Your task to perform on an android device: Do I have any events today? Image 0: 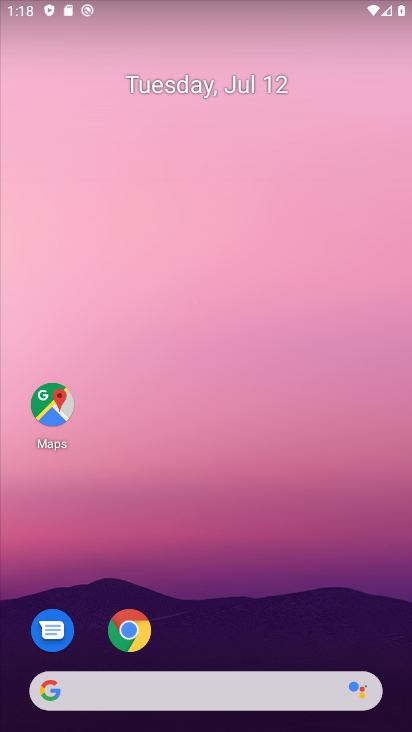
Step 0: drag from (383, 639) to (350, 61)
Your task to perform on an android device: Do I have any events today? Image 1: 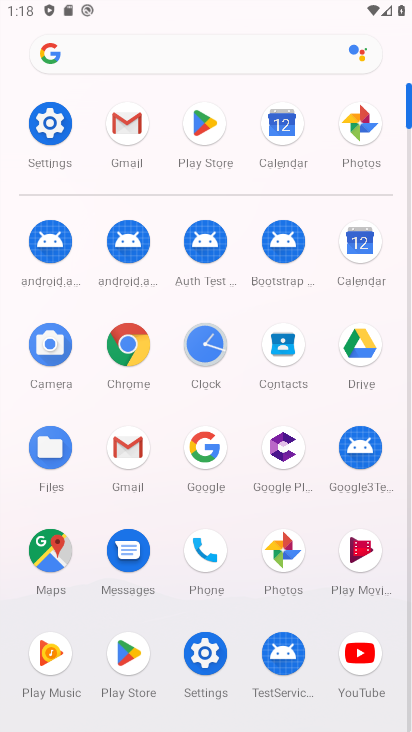
Step 1: click (358, 242)
Your task to perform on an android device: Do I have any events today? Image 2: 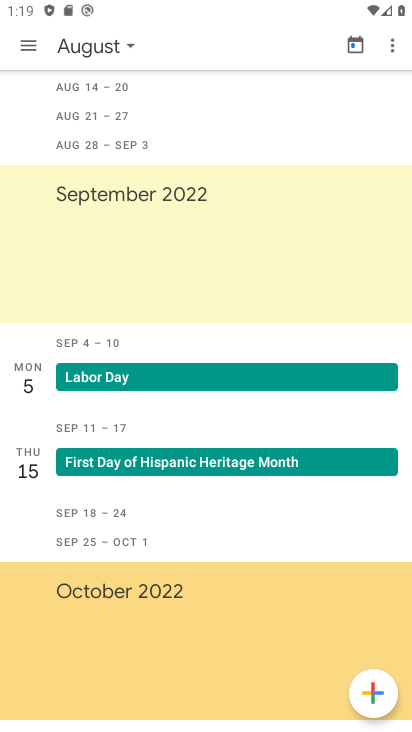
Step 2: click (28, 44)
Your task to perform on an android device: Do I have any events today? Image 3: 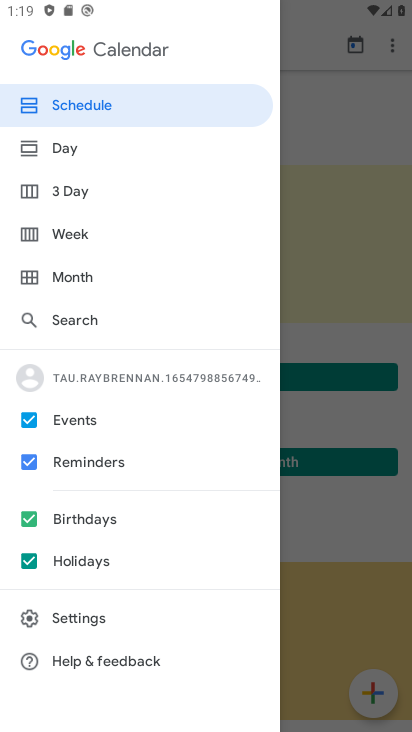
Step 3: click (61, 151)
Your task to perform on an android device: Do I have any events today? Image 4: 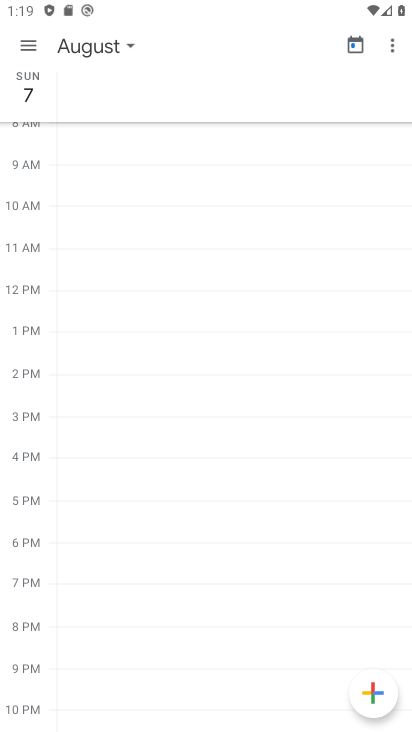
Step 4: click (125, 48)
Your task to perform on an android device: Do I have any events today? Image 5: 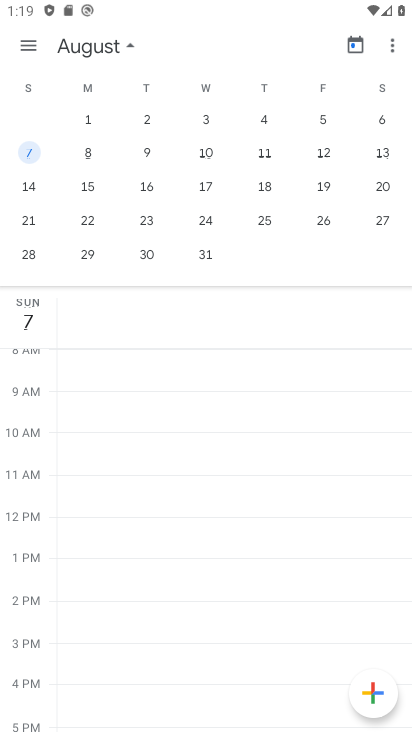
Step 5: drag from (29, 220) to (347, 210)
Your task to perform on an android device: Do I have any events today? Image 6: 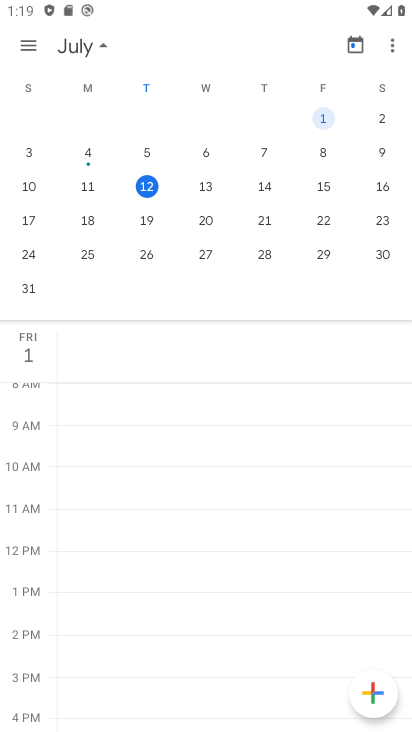
Step 6: click (148, 187)
Your task to perform on an android device: Do I have any events today? Image 7: 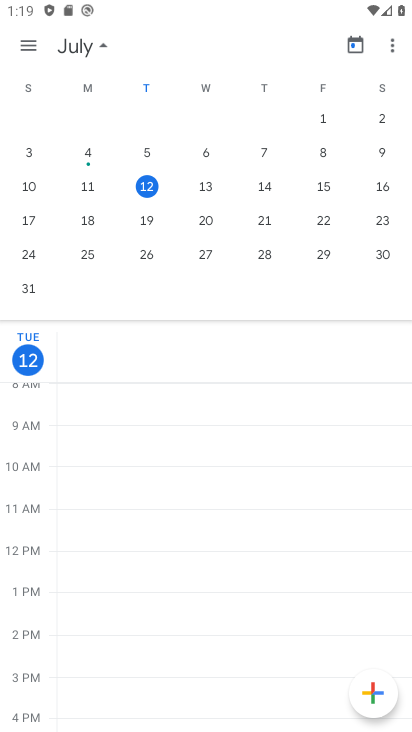
Step 7: task complete